Your task to perform on an android device: see tabs open on other devices in the chrome app Image 0: 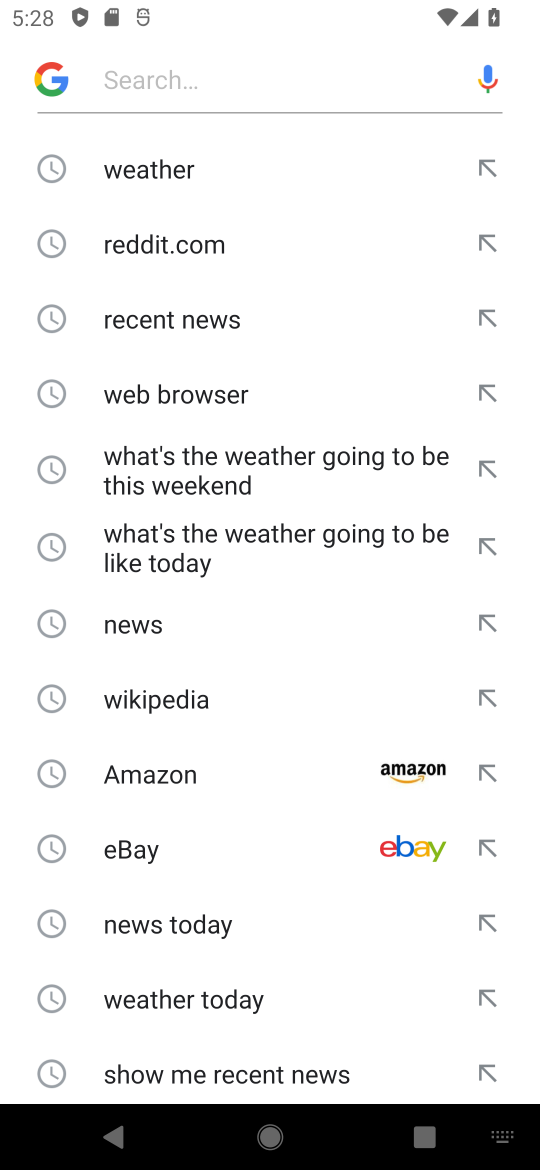
Step 0: press home button
Your task to perform on an android device: see tabs open on other devices in the chrome app Image 1: 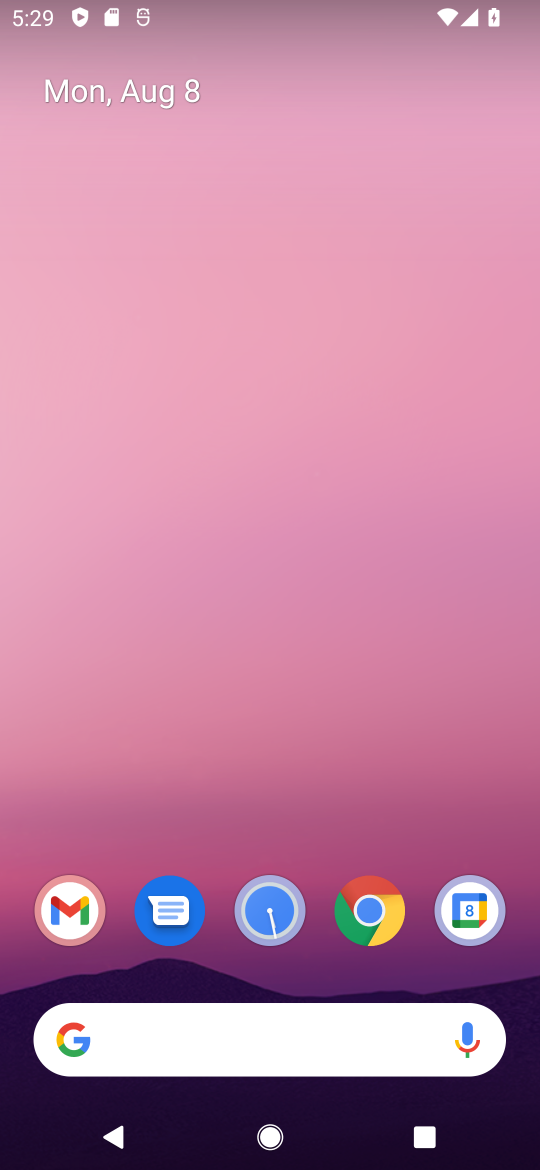
Step 1: click (368, 907)
Your task to perform on an android device: see tabs open on other devices in the chrome app Image 2: 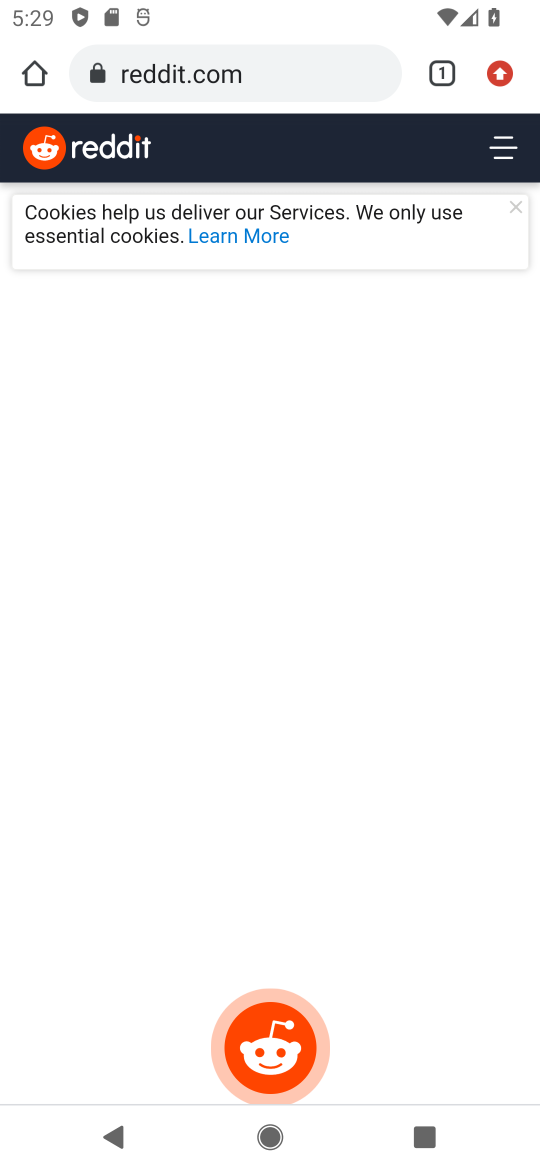
Step 2: click (506, 77)
Your task to perform on an android device: see tabs open on other devices in the chrome app Image 3: 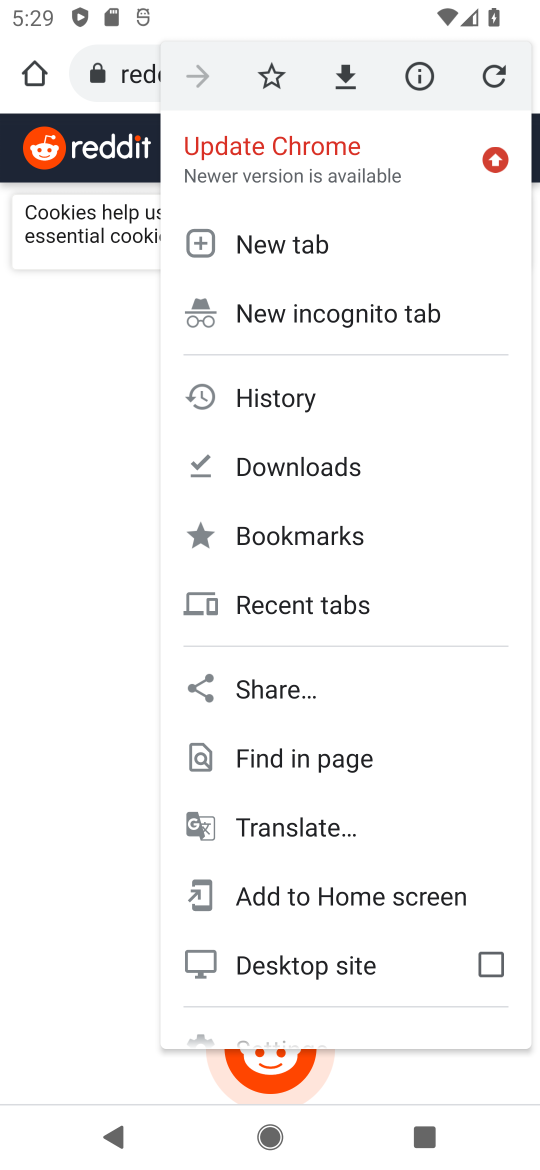
Step 3: click (308, 598)
Your task to perform on an android device: see tabs open on other devices in the chrome app Image 4: 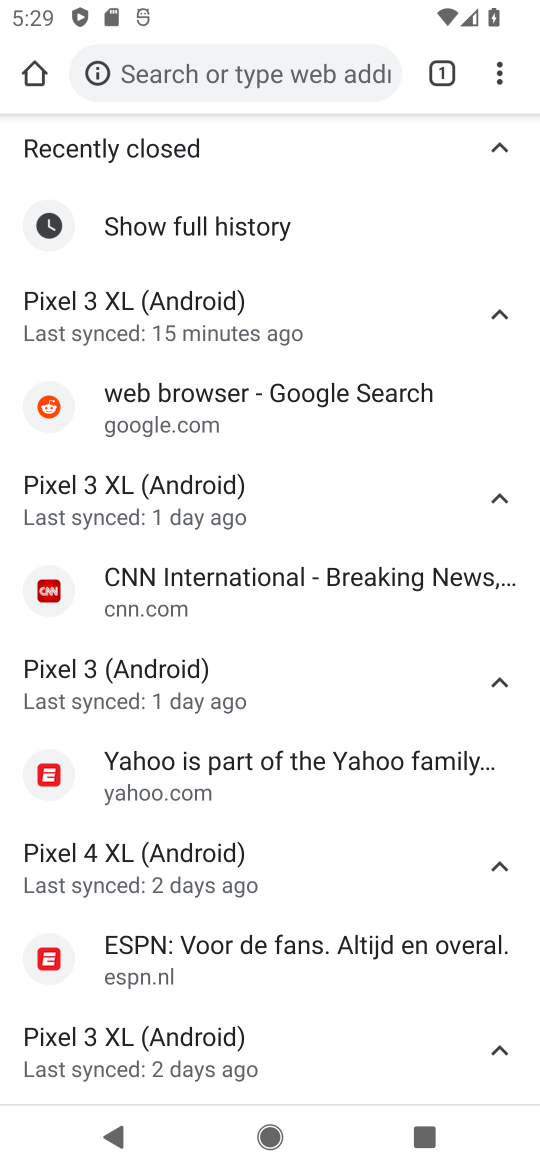
Step 4: task complete